Your task to perform on an android device: clear history in the chrome app Image 0: 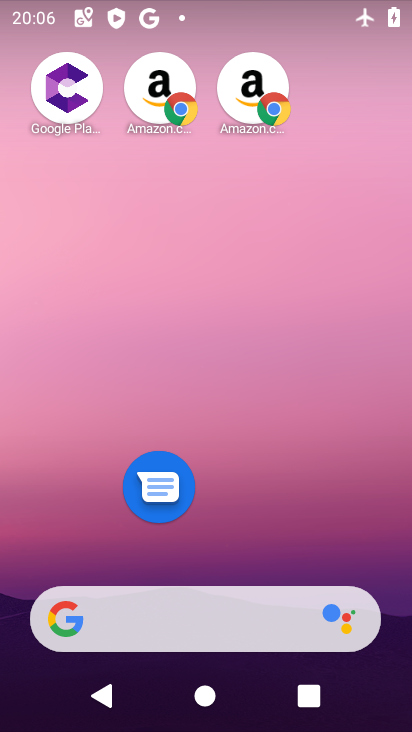
Step 0: drag from (16, 398) to (410, 325)
Your task to perform on an android device: clear history in the chrome app Image 1: 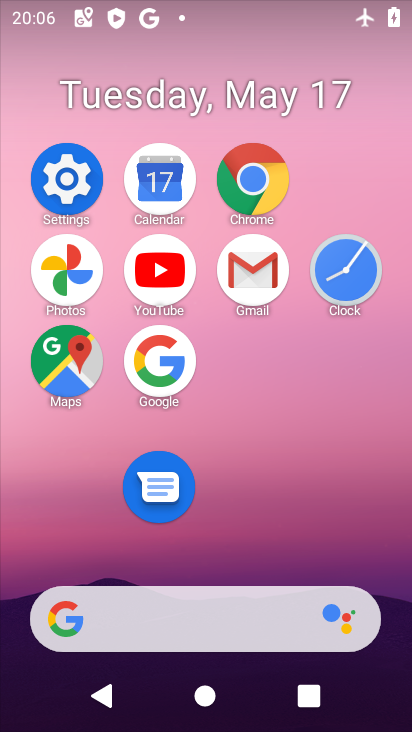
Step 1: click (259, 171)
Your task to perform on an android device: clear history in the chrome app Image 2: 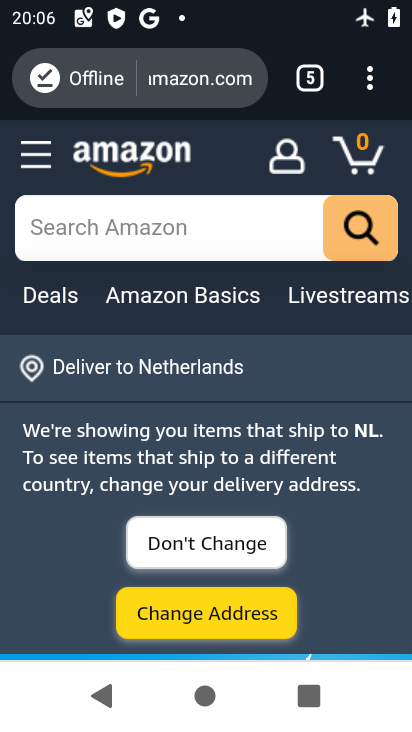
Step 2: click (386, 81)
Your task to perform on an android device: clear history in the chrome app Image 3: 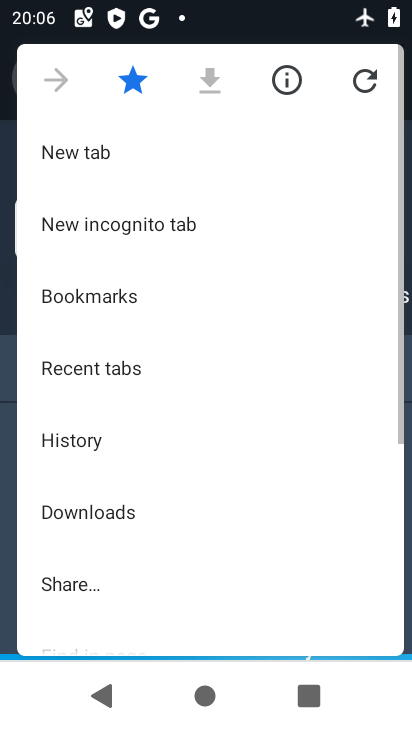
Step 3: click (67, 432)
Your task to perform on an android device: clear history in the chrome app Image 4: 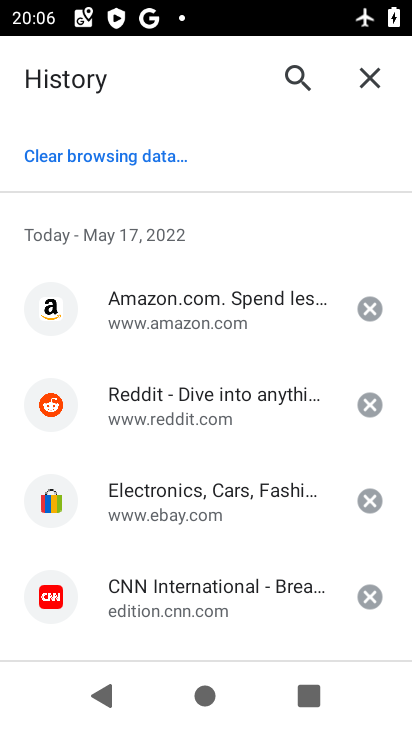
Step 4: click (181, 169)
Your task to perform on an android device: clear history in the chrome app Image 5: 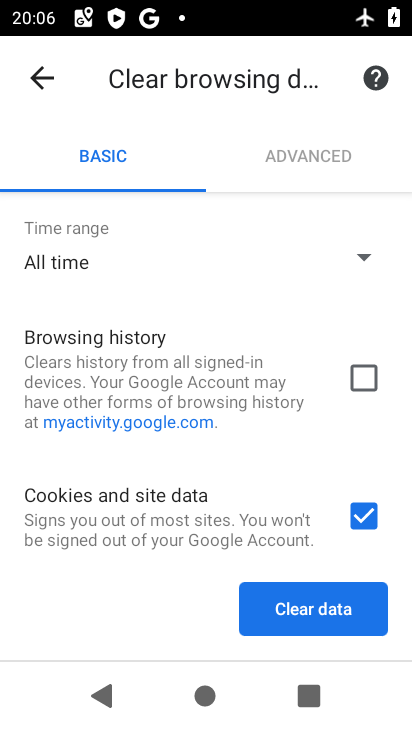
Step 5: click (373, 376)
Your task to perform on an android device: clear history in the chrome app Image 6: 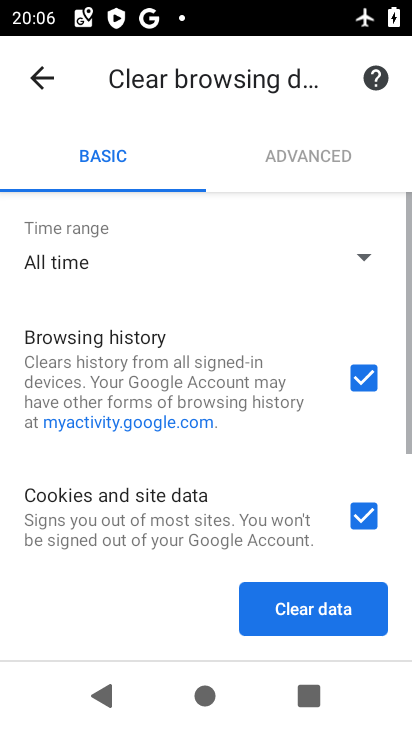
Step 6: click (309, 602)
Your task to perform on an android device: clear history in the chrome app Image 7: 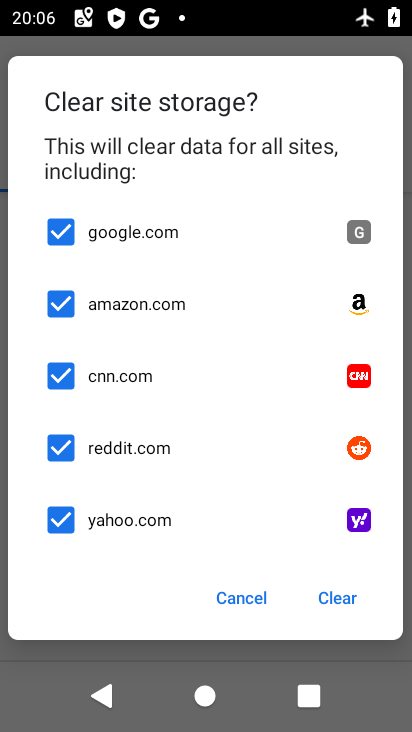
Step 7: click (346, 585)
Your task to perform on an android device: clear history in the chrome app Image 8: 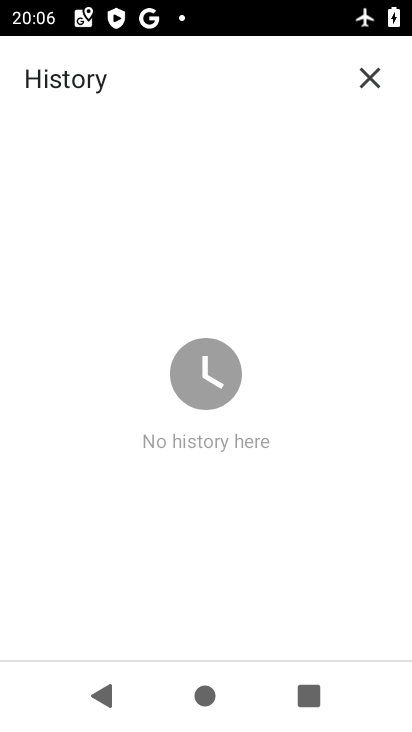
Step 8: task complete